Your task to perform on an android device: toggle sleep mode Image 0: 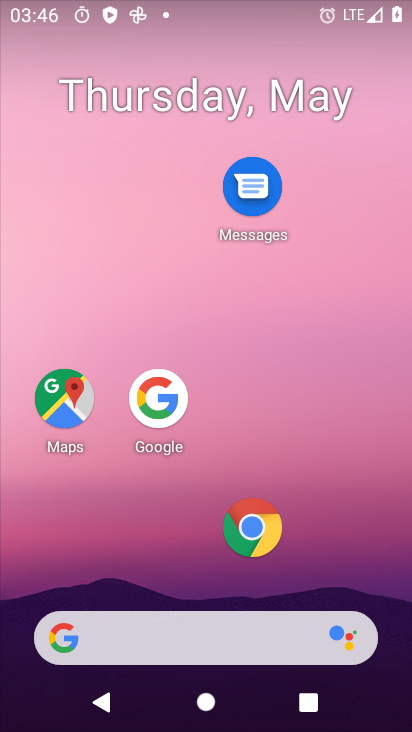
Step 0: drag from (213, 583) to (226, 114)
Your task to perform on an android device: toggle sleep mode Image 1: 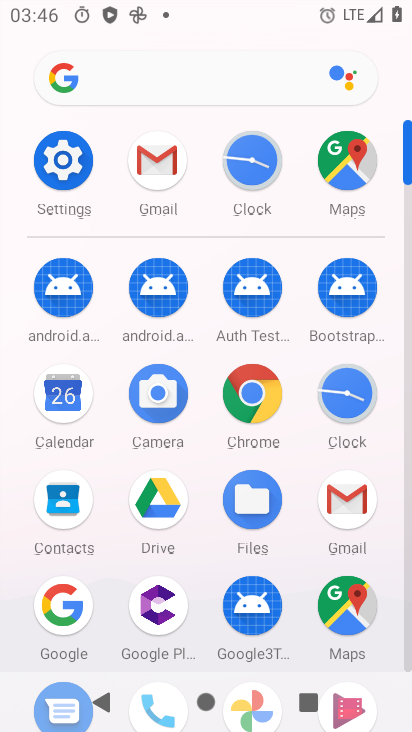
Step 1: click (57, 146)
Your task to perform on an android device: toggle sleep mode Image 2: 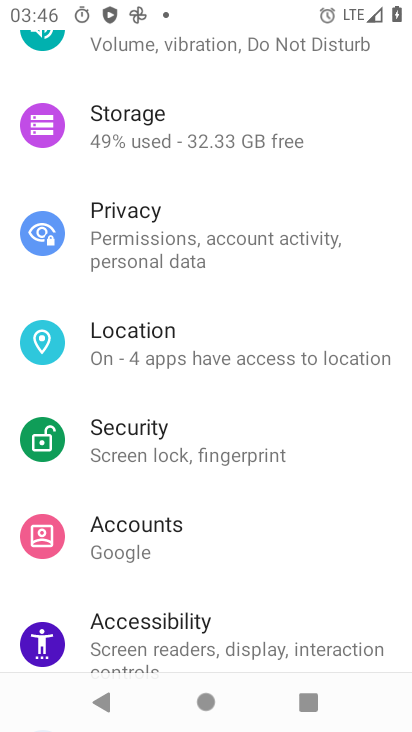
Step 2: drag from (190, 153) to (234, 616)
Your task to perform on an android device: toggle sleep mode Image 3: 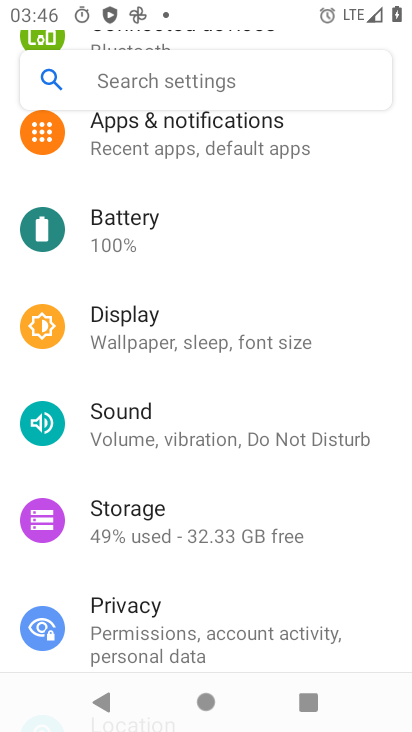
Step 3: click (180, 332)
Your task to perform on an android device: toggle sleep mode Image 4: 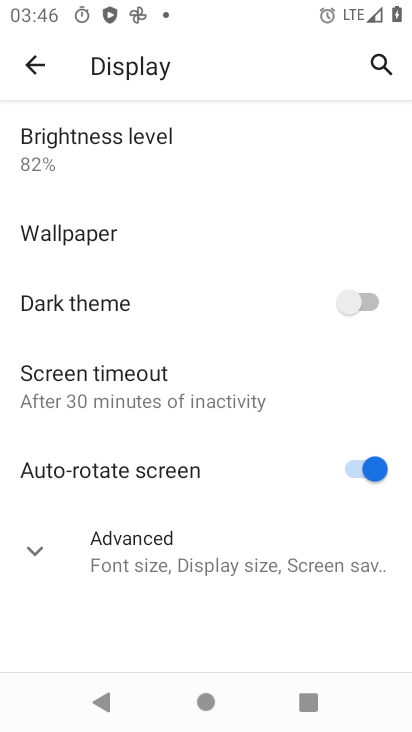
Step 4: click (199, 379)
Your task to perform on an android device: toggle sleep mode Image 5: 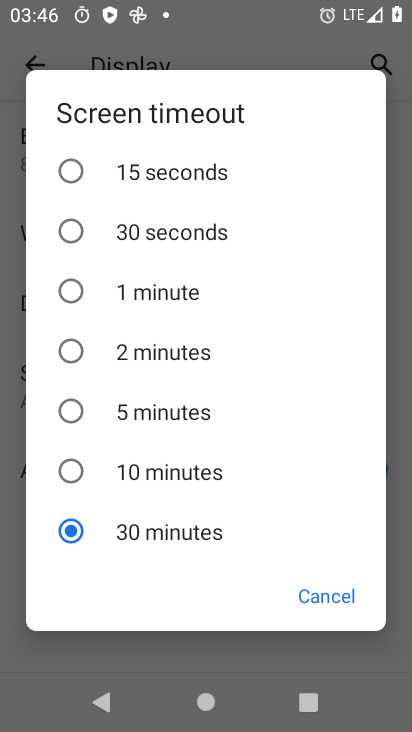
Step 5: task complete